Your task to perform on an android device: Go to Google Image 0: 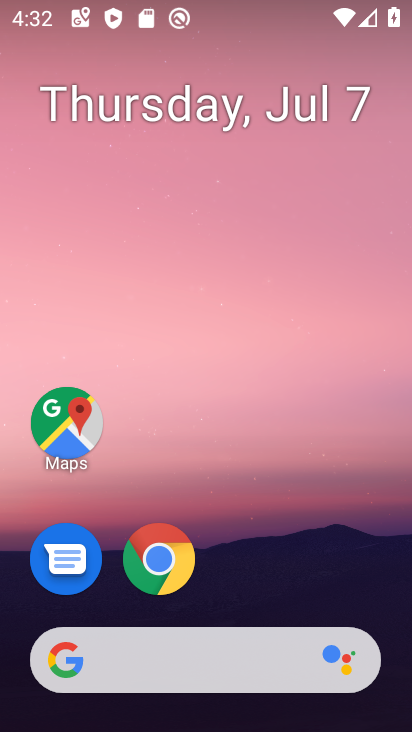
Step 0: drag from (264, 617) to (242, 0)
Your task to perform on an android device: Go to Google Image 1: 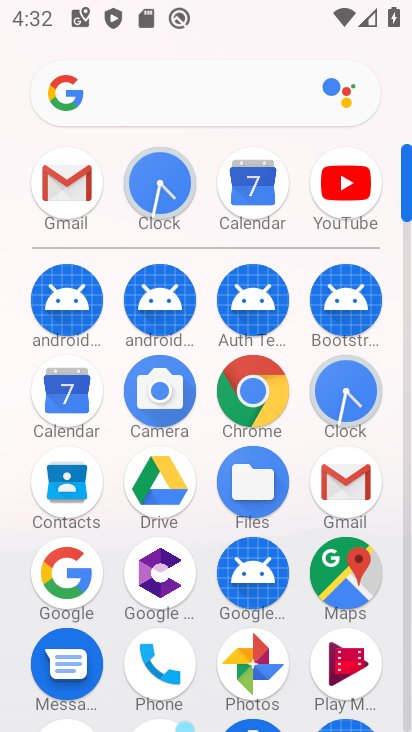
Step 1: click (60, 569)
Your task to perform on an android device: Go to Google Image 2: 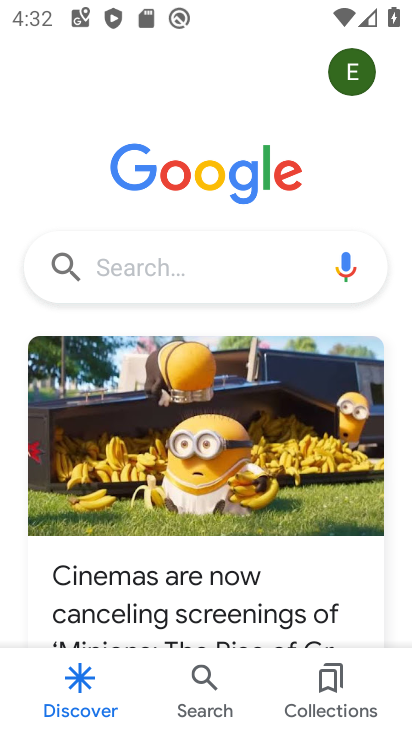
Step 2: task complete